Your task to perform on an android device: turn on translation in the chrome app Image 0: 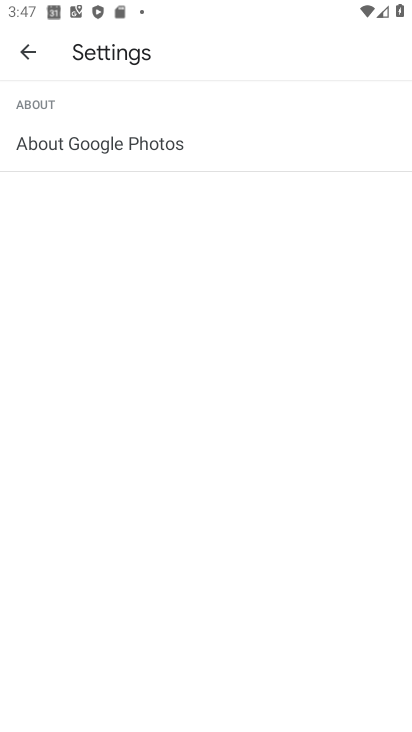
Step 0: press home button
Your task to perform on an android device: turn on translation in the chrome app Image 1: 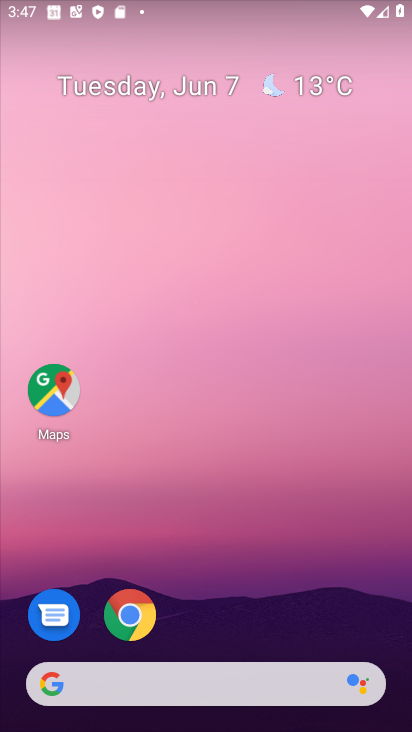
Step 1: drag from (201, 617) to (289, 18)
Your task to perform on an android device: turn on translation in the chrome app Image 2: 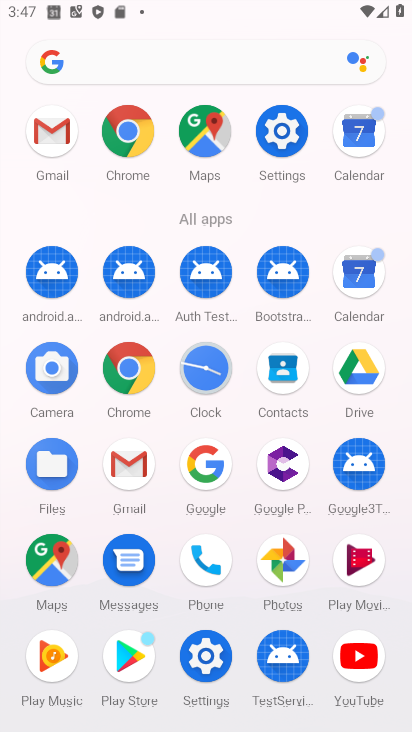
Step 2: click (139, 138)
Your task to perform on an android device: turn on translation in the chrome app Image 3: 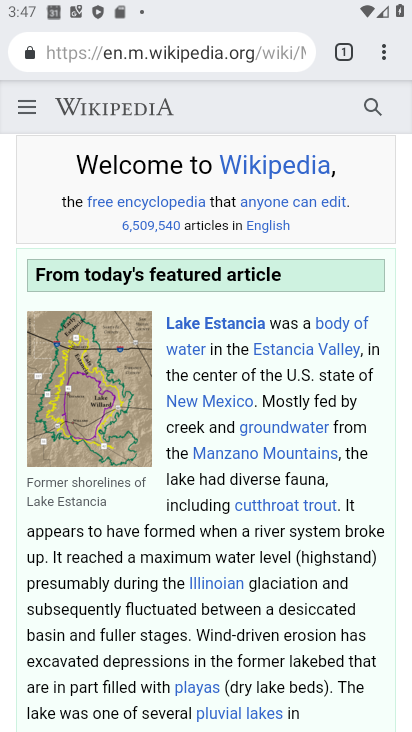
Step 3: click (382, 51)
Your task to perform on an android device: turn on translation in the chrome app Image 4: 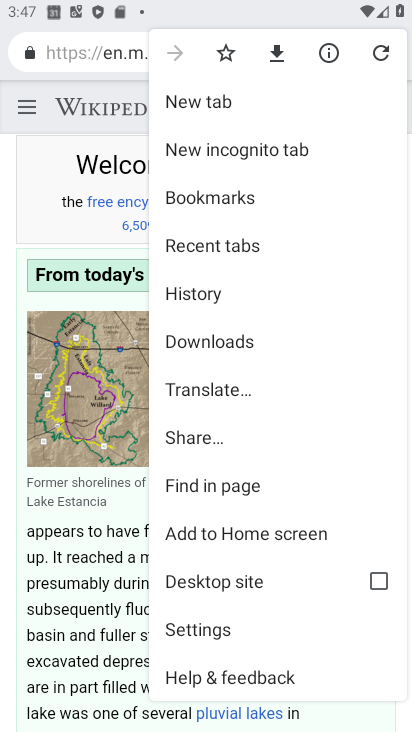
Step 4: click (219, 640)
Your task to perform on an android device: turn on translation in the chrome app Image 5: 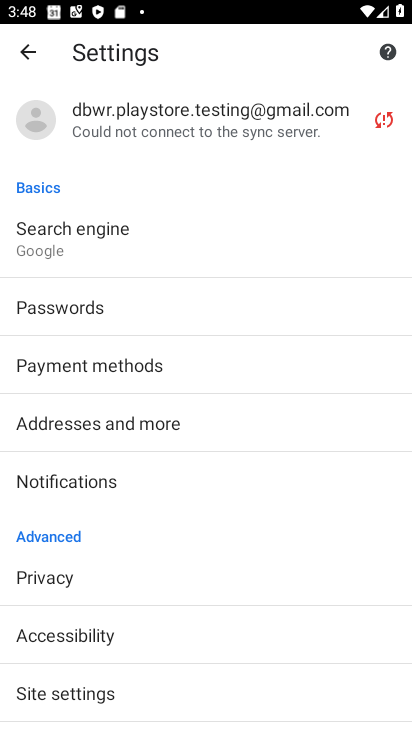
Step 5: drag from (118, 592) to (169, 271)
Your task to perform on an android device: turn on translation in the chrome app Image 6: 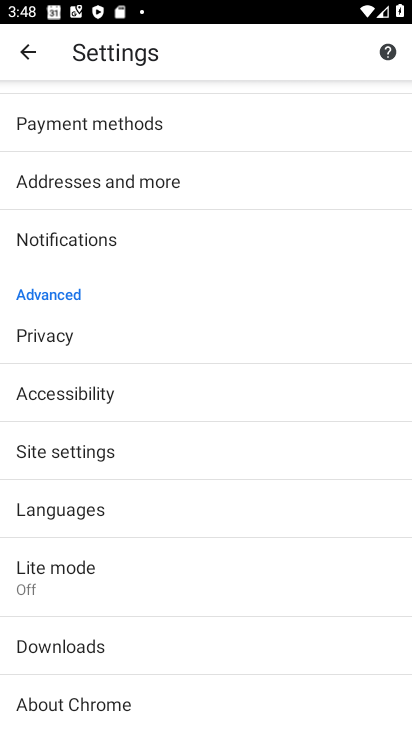
Step 6: click (82, 519)
Your task to perform on an android device: turn on translation in the chrome app Image 7: 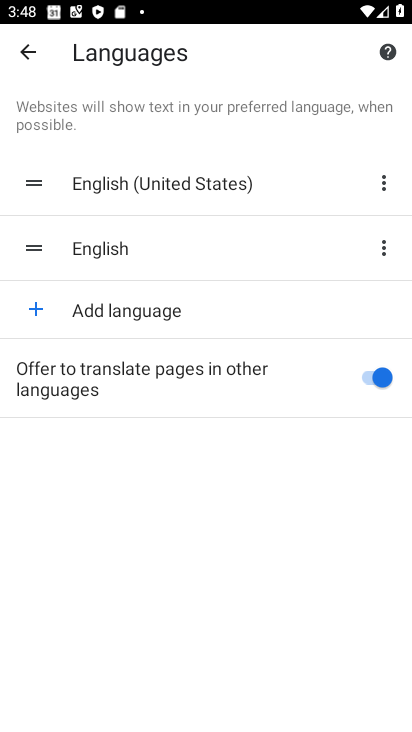
Step 7: task complete